Your task to perform on an android device: manage bookmarks in the chrome app Image 0: 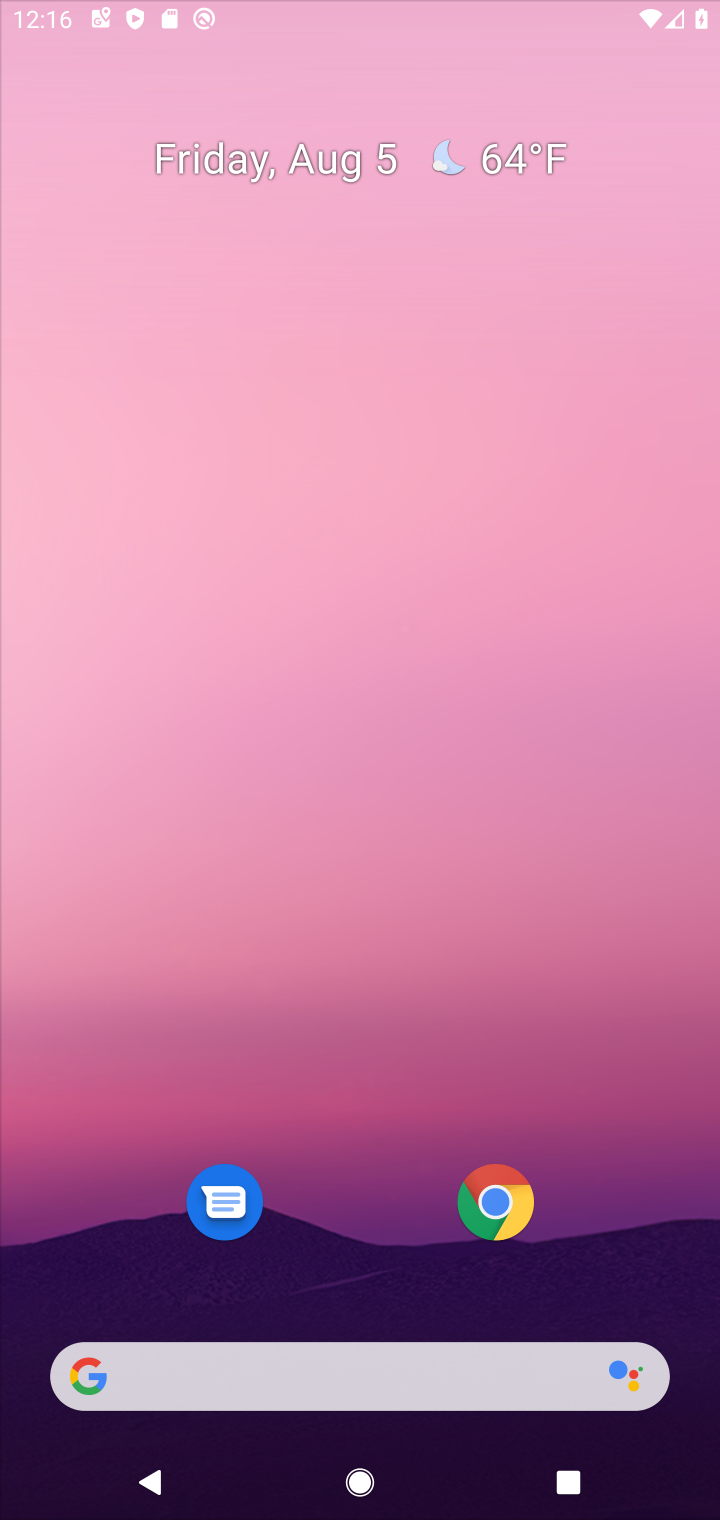
Step 0: press back button
Your task to perform on an android device: manage bookmarks in the chrome app Image 1: 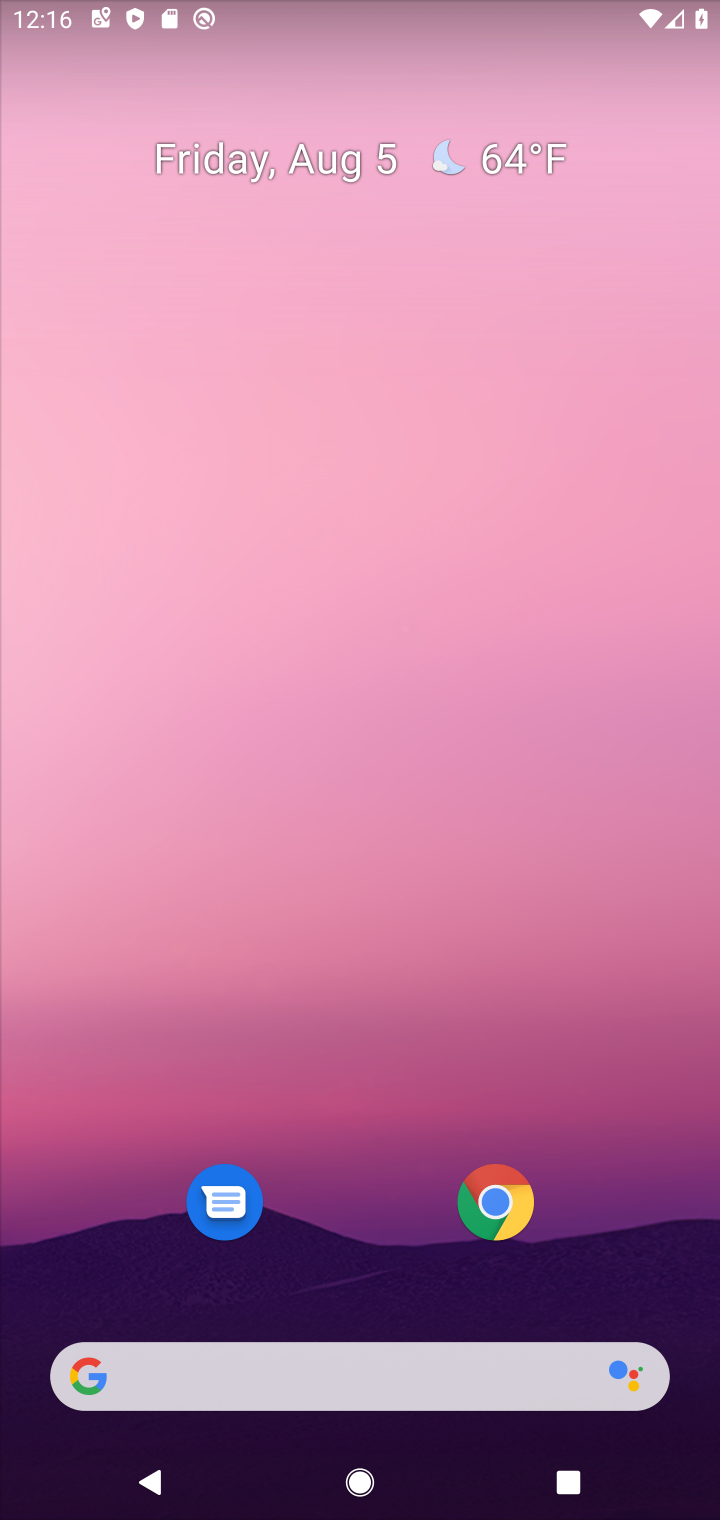
Step 1: click (492, 1201)
Your task to perform on an android device: manage bookmarks in the chrome app Image 2: 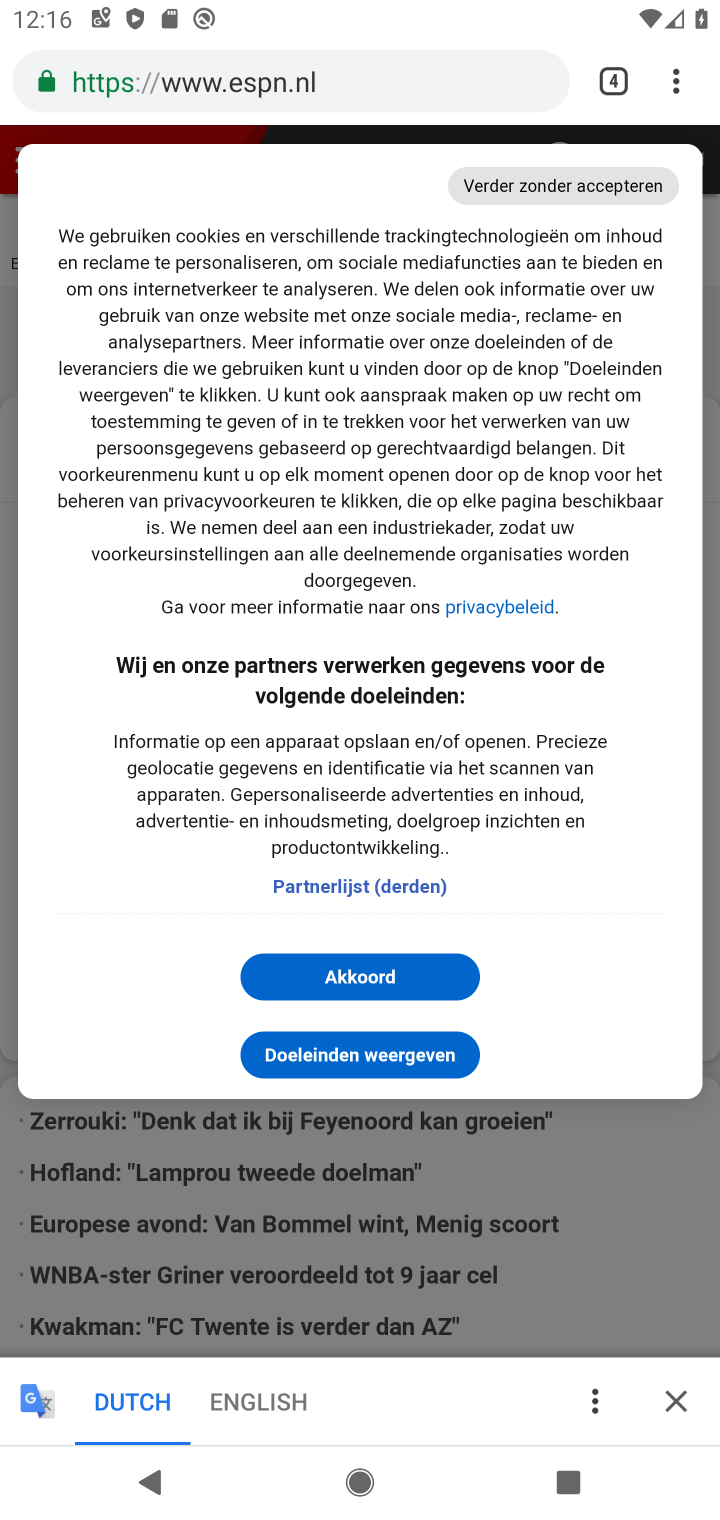
Step 2: click (671, 87)
Your task to perform on an android device: manage bookmarks in the chrome app Image 3: 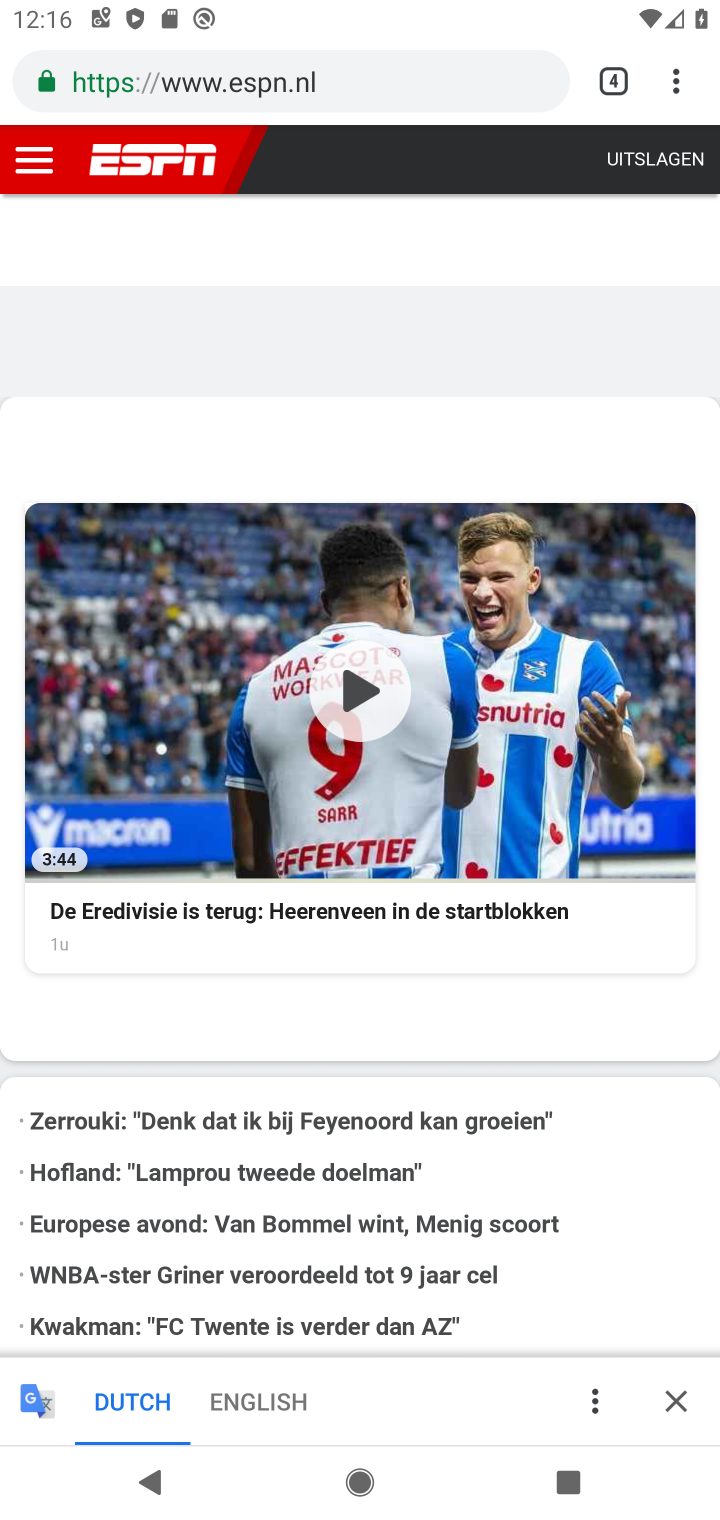
Step 3: drag from (681, 73) to (450, 408)
Your task to perform on an android device: manage bookmarks in the chrome app Image 4: 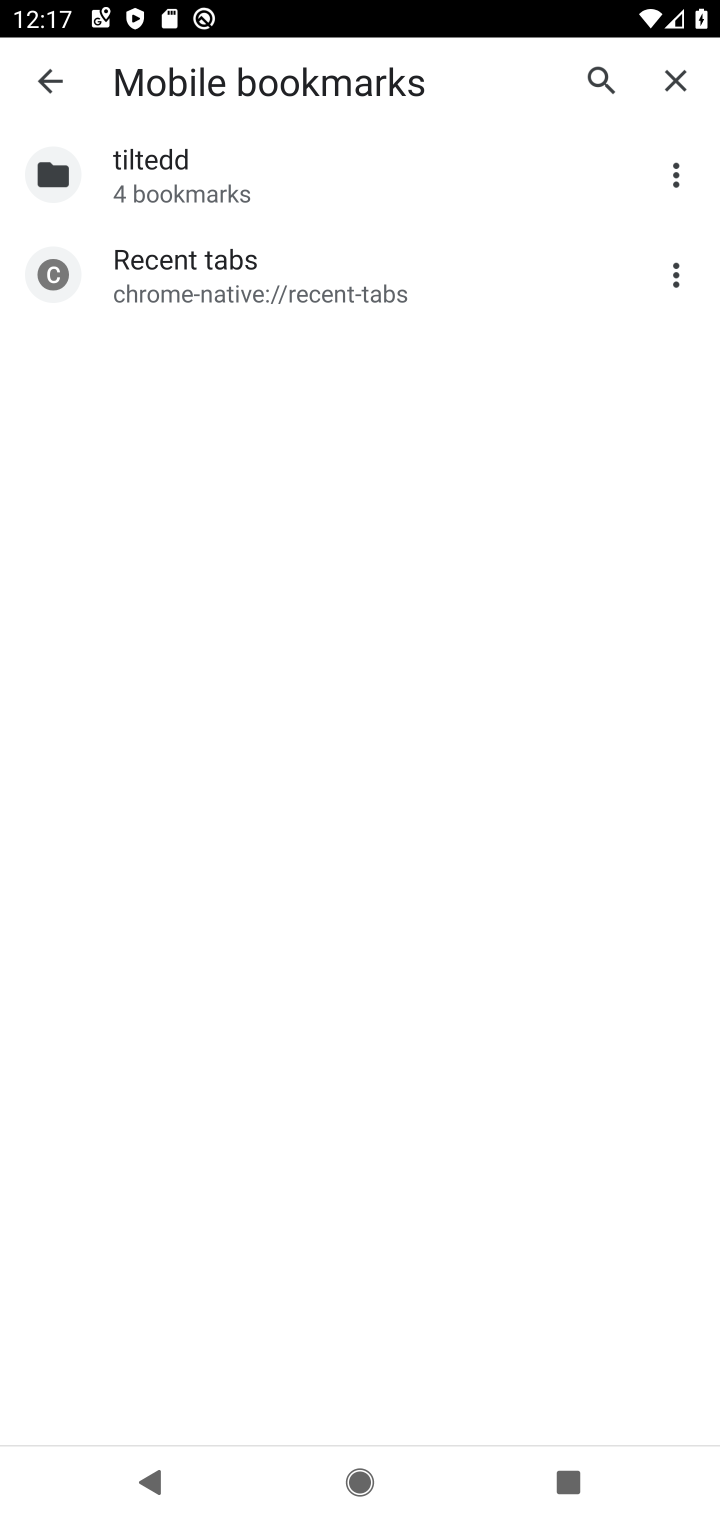
Step 4: click (259, 287)
Your task to perform on an android device: manage bookmarks in the chrome app Image 5: 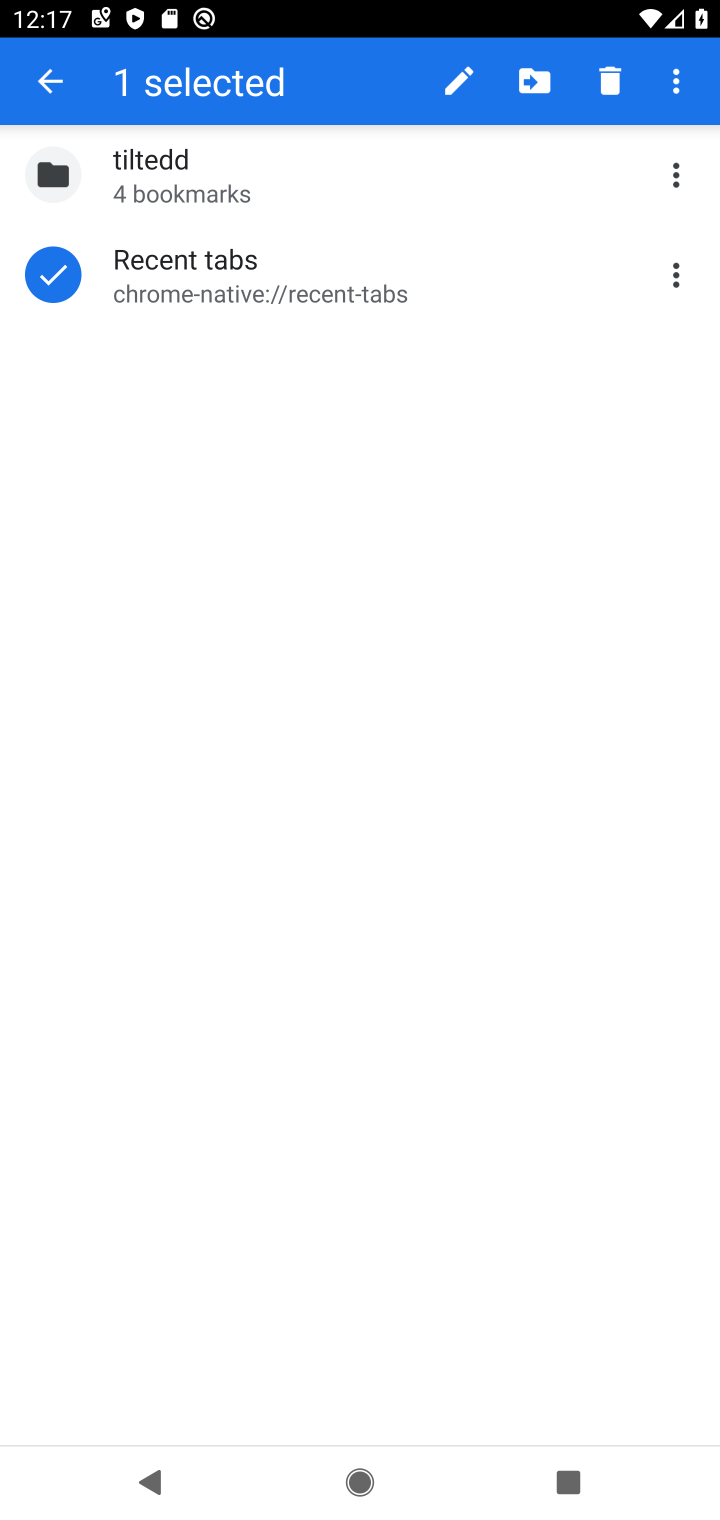
Step 5: click (603, 75)
Your task to perform on an android device: manage bookmarks in the chrome app Image 6: 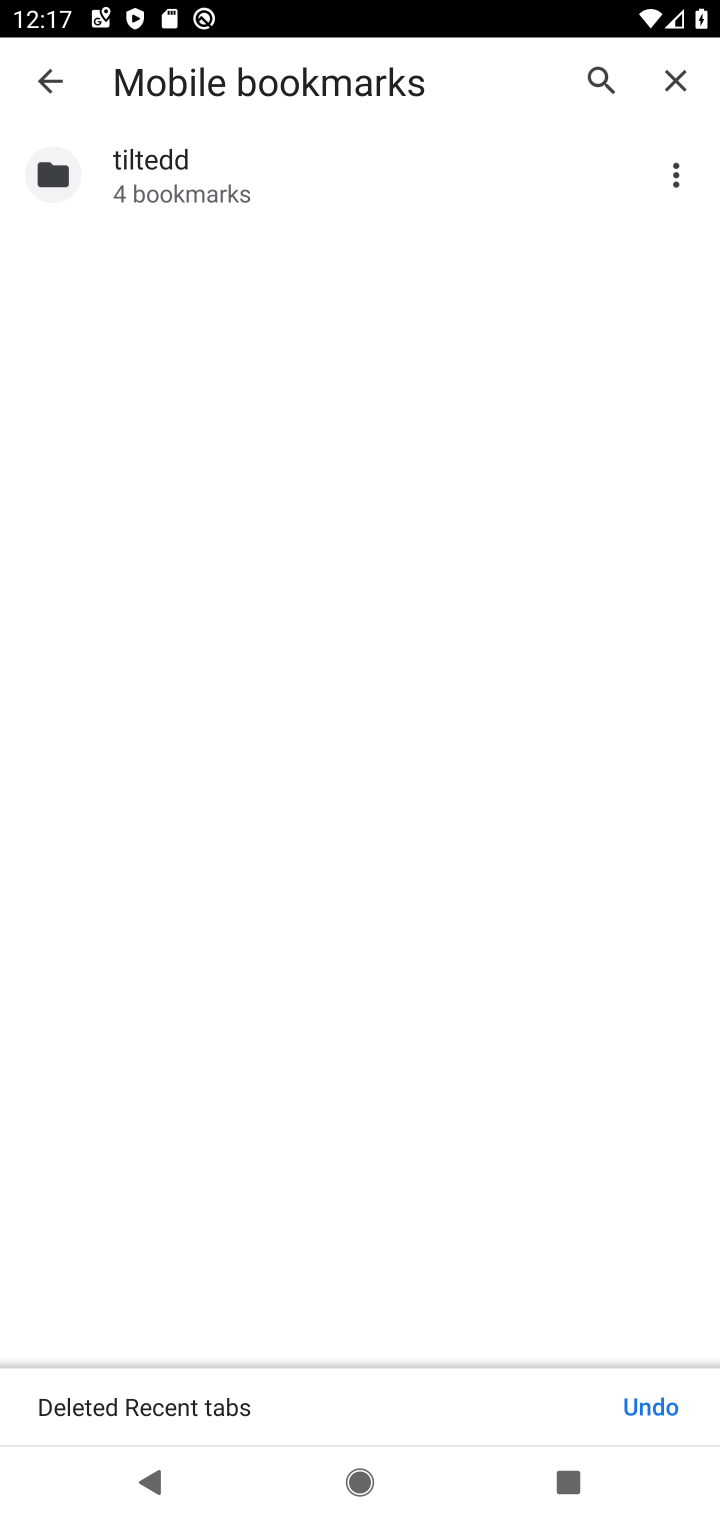
Step 6: task complete